Your task to perform on an android device: Do I have any events tomorrow? Image 0: 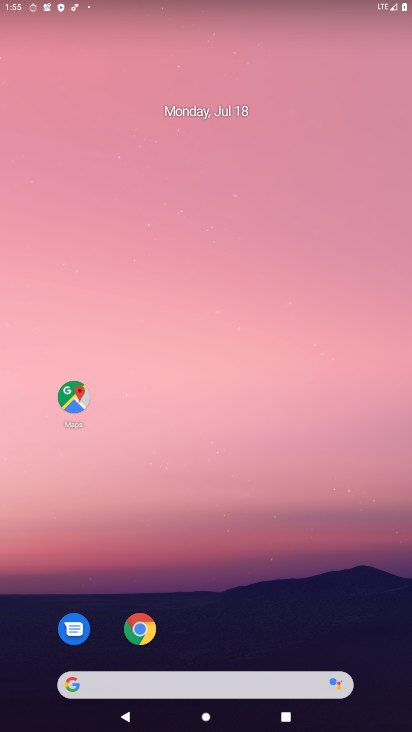
Step 0: press home button
Your task to perform on an android device: Do I have any events tomorrow? Image 1: 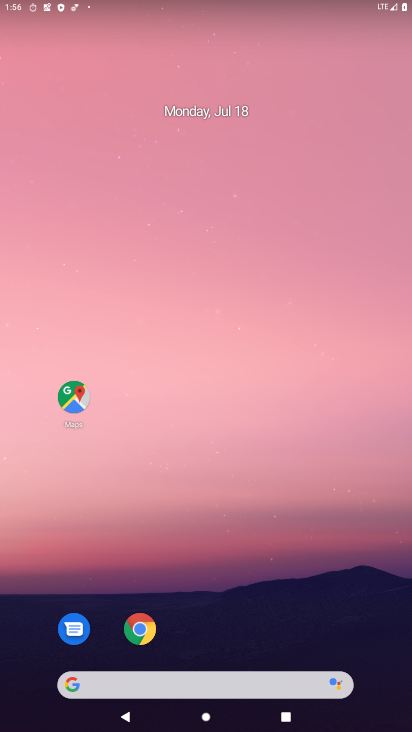
Step 1: drag from (222, 643) to (214, 152)
Your task to perform on an android device: Do I have any events tomorrow? Image 2: 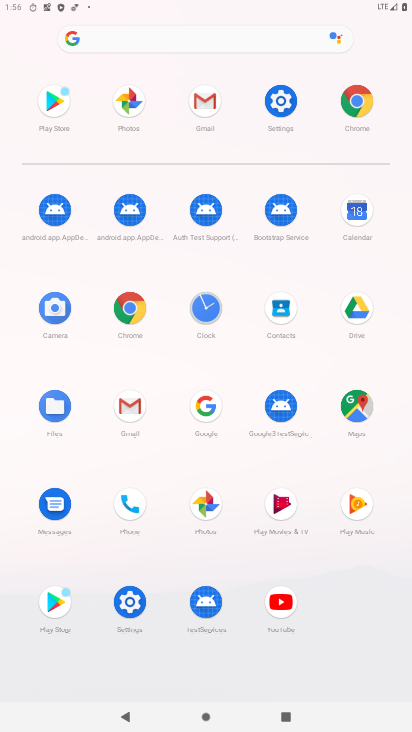
Step 2: click (350, 214)
Your task to perform on an android device: Do I have any events tomorrow? Image 3: 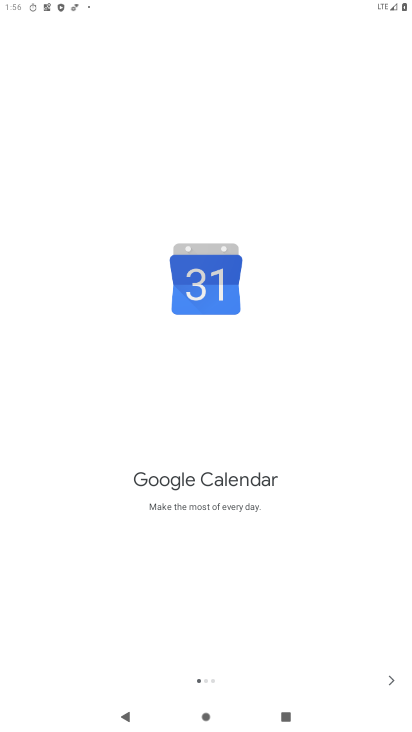
Step 3: click (392, 676)
Your task to perform on an android device: Do I have any events tomorrow? Image 4: 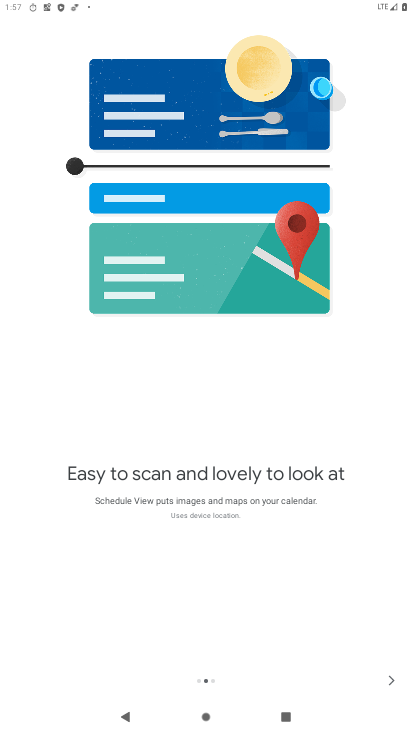
Step 4: click (392, 674)
Your task to perform on an android device: Do I have any events tomorrow? Image 5: 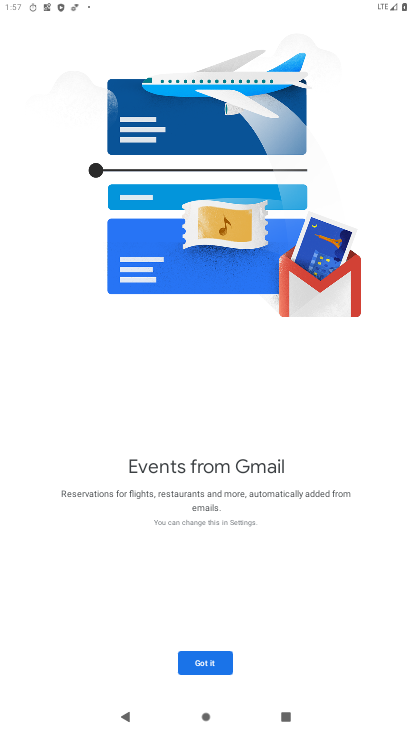
Step 5: click (203, 662)
Your task to perform on an android device: Do I have any events tomorrow? Image 6: 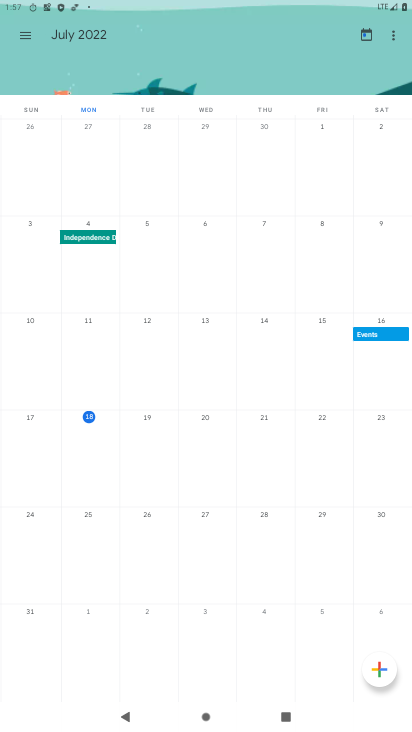
Step 6: click (26, 31)
Your task to perform on an android device: Do I have any events tomorrow? Image 7: 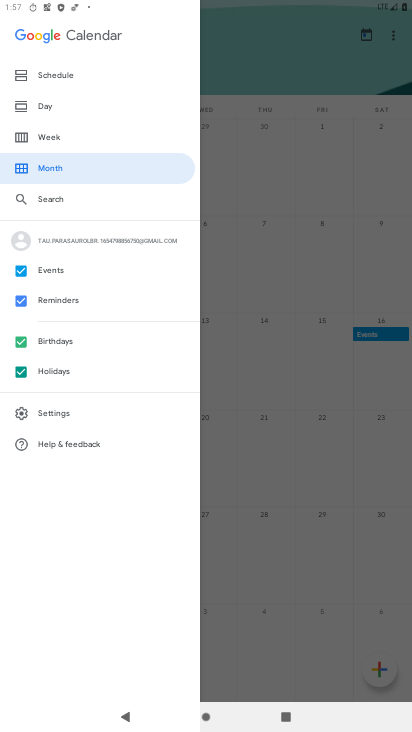
Step 7: click (52, 103)
Your task to perform on an android device: Do I have any events tomorrow? Image 8: 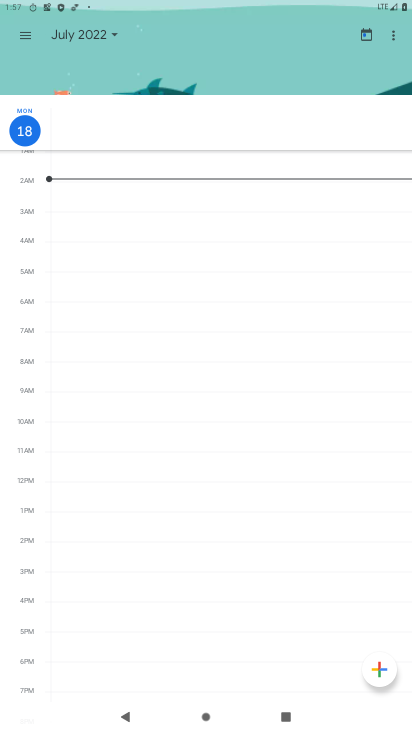
Step 8: click (112, 30)
Your task to perform on an android device: Do I have any events tomorrow? Image 9: 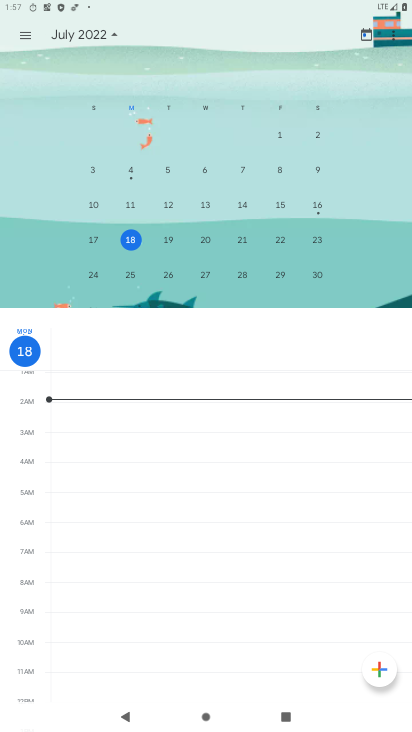
Step 9: click (164, 233)
Your task to perform on an android device: Do I have any events tomorrow? Image 10: 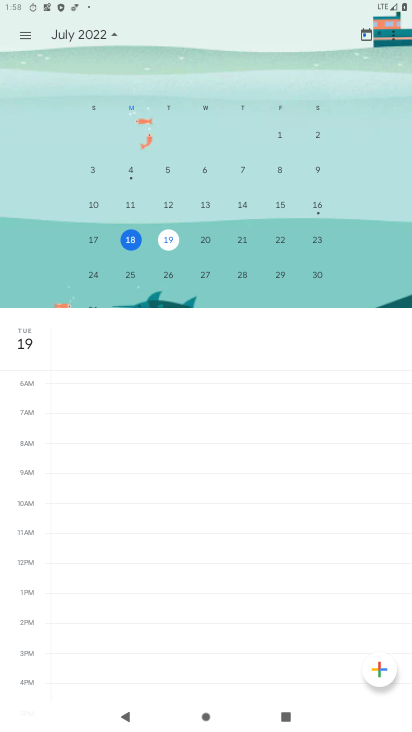
Step 10: click (110, 31)
Your task to perform on an android device: Do I have any events tomorrow? Image 11: 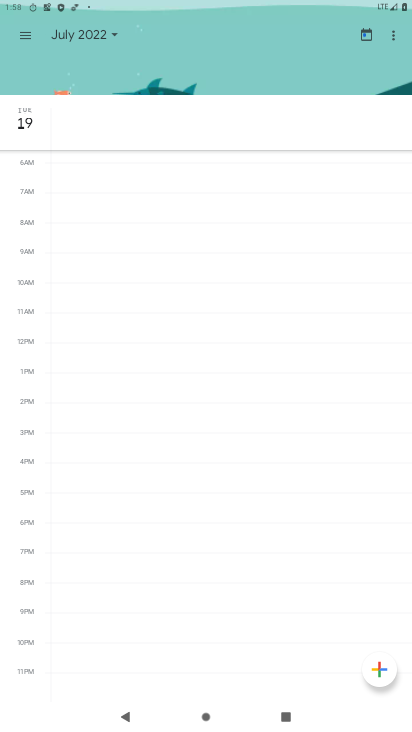
Step 11: task complete